Your task to perform on an android device: What's the weather? Image 0: 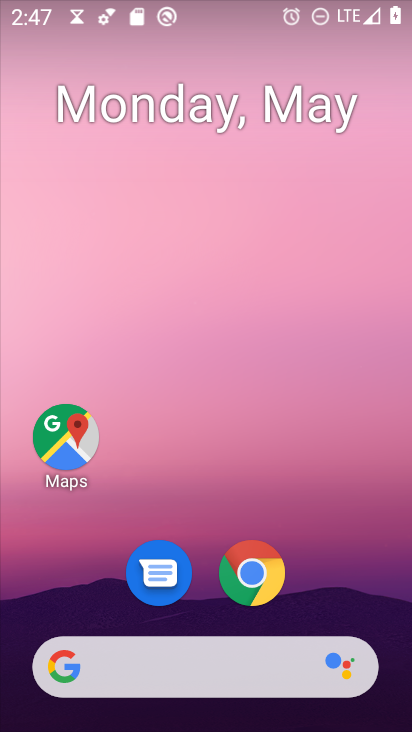
Step 0: drag from (295, 651) to (251, 60)
Your task to perform on an android device: What's the weather? Image 1: 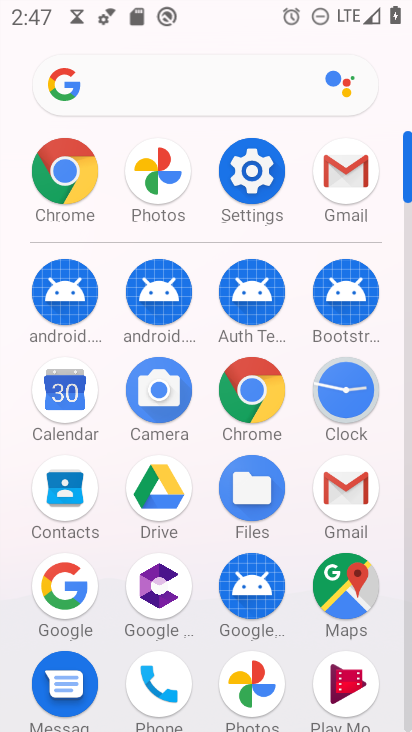
Step 1: click (77, 600)
Your task to perform on an android device: What's the weather? Image 2: 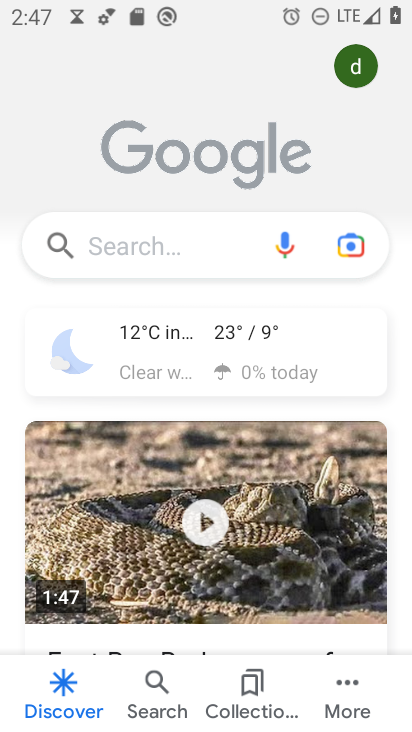
Step 2: click (214, 258)
Your task to perform on an android device: What's the weather? Image 3: 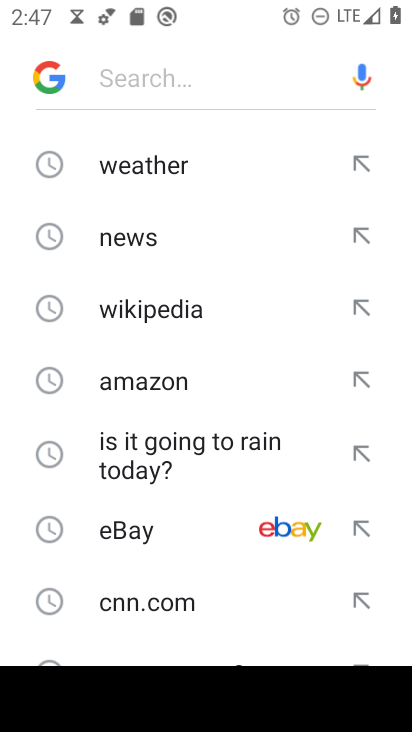
Step 3: click (175, 159)
Your task to perform on an android device: What's the weather? Image 4: 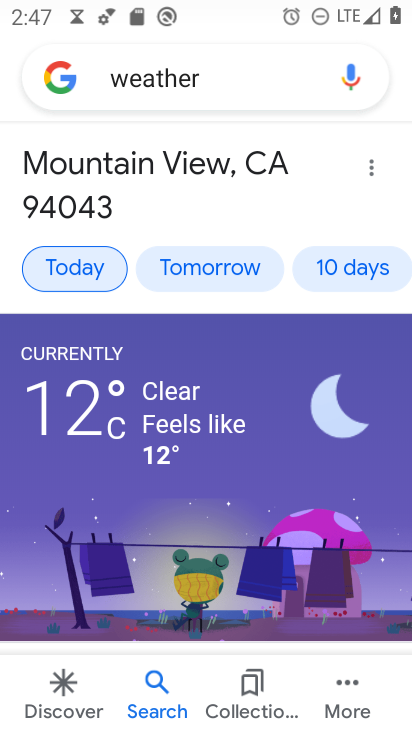
Step 4: task complete